Your task to perform on an android device: open device folders in google photos Image 0: 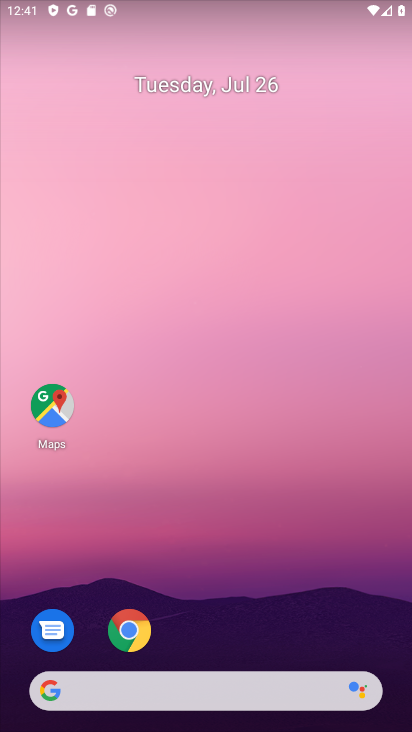
Step 0: drag from (166, 595) to (362, 123)
Your task to perform on an android device: open device folders in google photos Image 1: 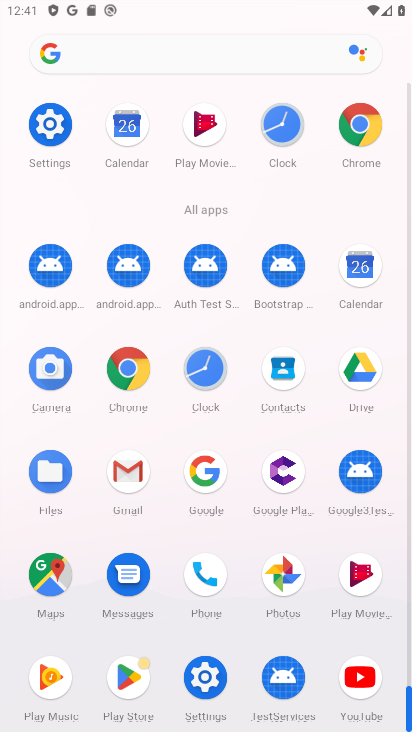
Step 1: click (282, 572)
Your task to perform on an android device: open device folders in google photos Image 2: 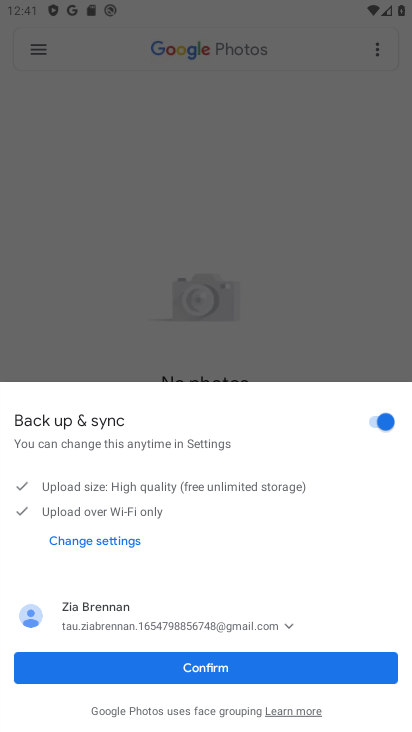
Step 2: click (186, 661)
Your task to perform on an android device: open device folders in google photos Image 3: 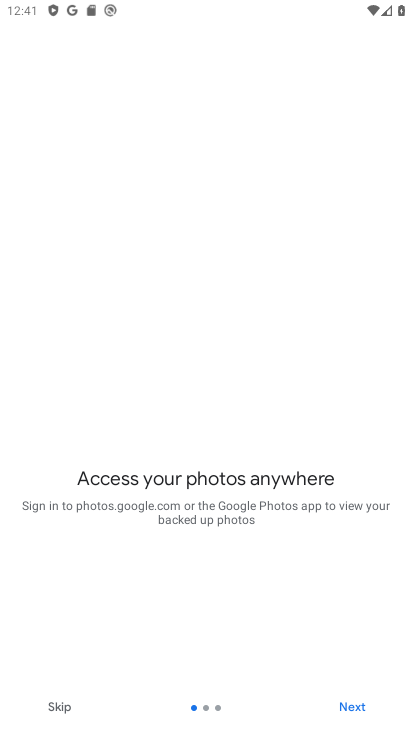
Step 3: click (372, 711)
Your task to perform on an android device: open device folders in google photos Image 4: 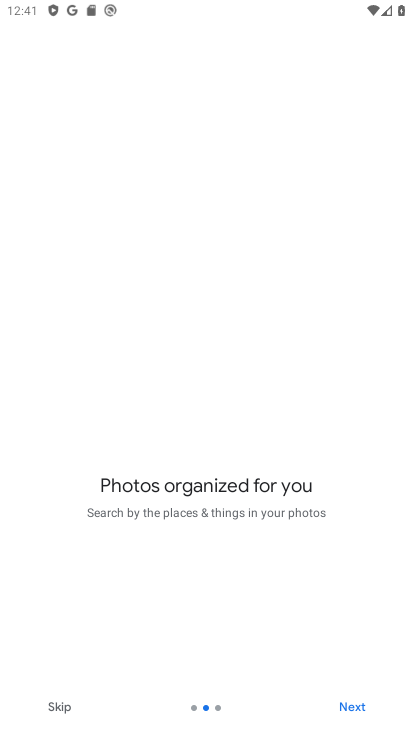
Step 4: click (372, 707)
Your task to perform on an android device: open device folders in google photos Image 5: 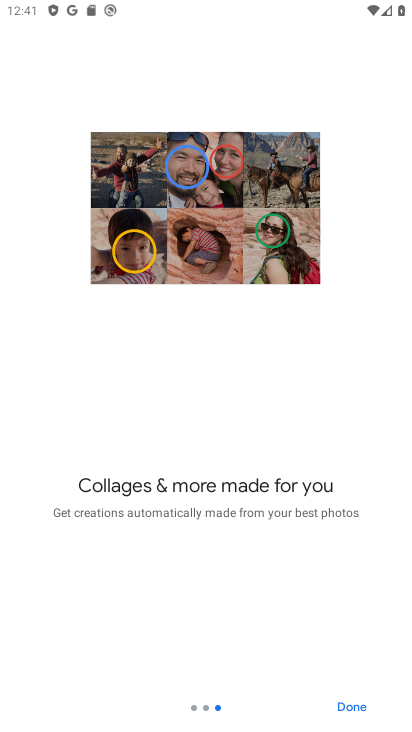
Step 5: click (371, 705)
Your task to perform on an android device: open device folders in google photos Image 6: 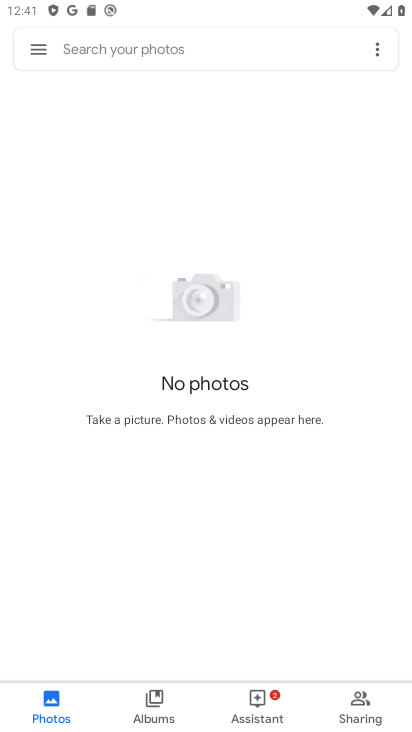
Step 6: click (48, 47)
Your task to perform on an android device: open device folders in google photos Image 7: 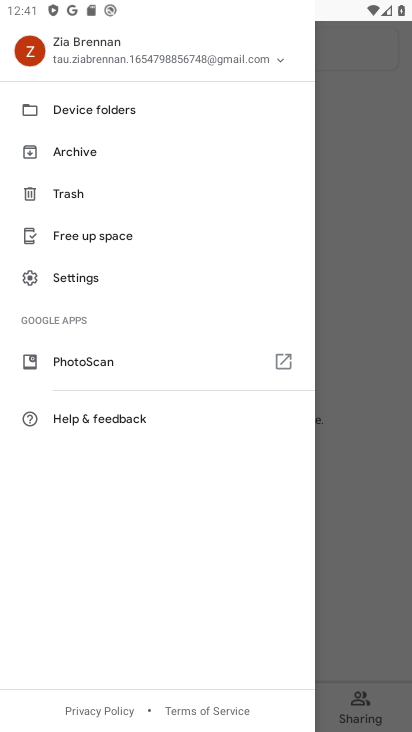
Step 7: click (72, 113)
Your task to perform on an android device: open device folders in google photos Image 8: 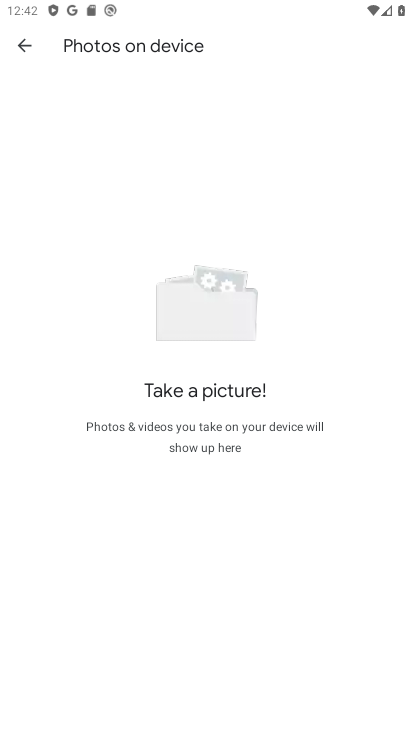
Step 8: click (24, 49)
Your task to perform on an android device: open device folders in google photos Image 9: 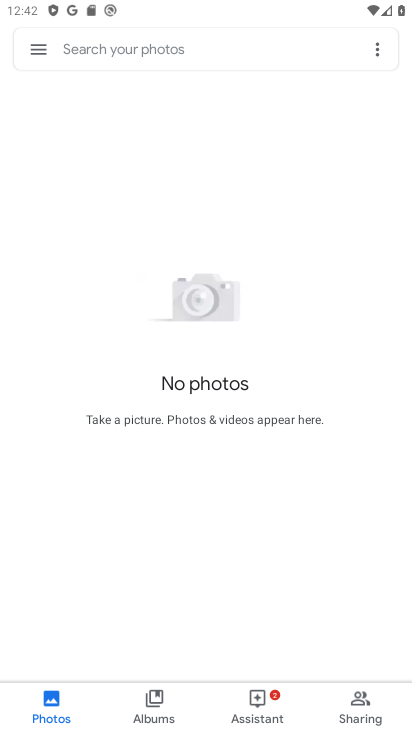
Step 9: task complete